Your task to perform on an android device: Open Reddit.com Image 0: 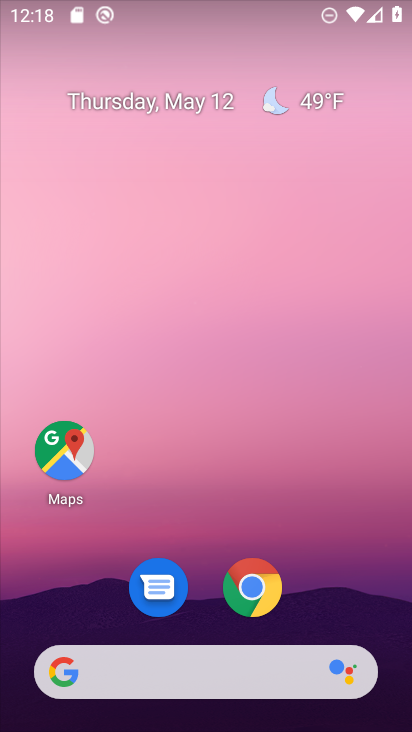
Step 0: drag from (317, 623) to (365, 190)
Your task to perform on an android device: Open Reddit.com Image 1: 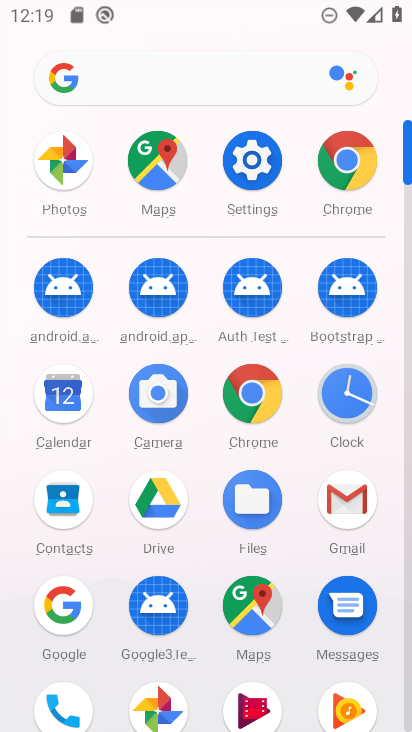
Step 1: click (343, 164)
Your task to perform on an android device: Open Reddit.com Image 2: 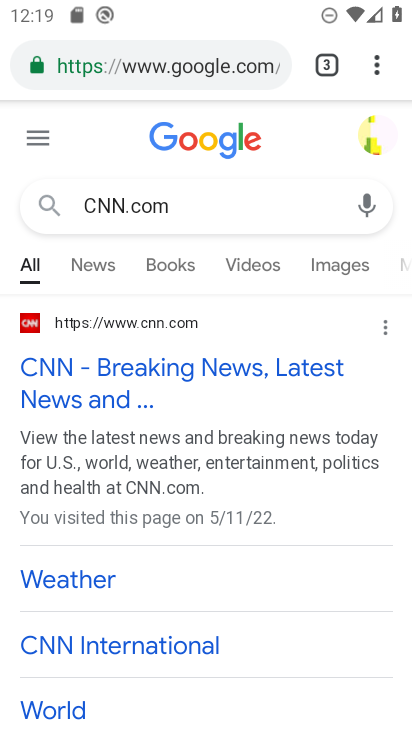
Step 2: click (359, 63)
Your task to perform on an android device: Open Reddit.com Image 3: 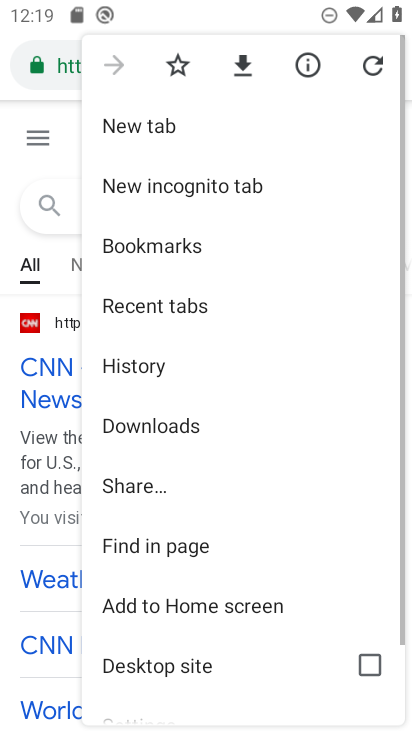
Step 3: click (164, 135)
Your task to perform on an android device: Open Reddit.com Image 4: 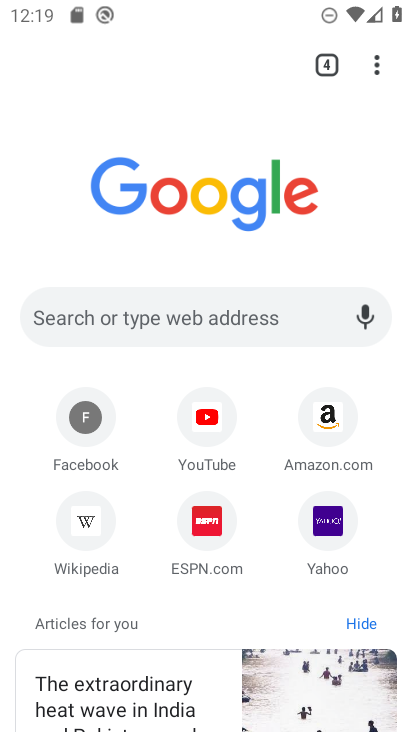
Step 4: click (173, 326)
Your task to perform on an android device: Open Reddit.com Image 5: 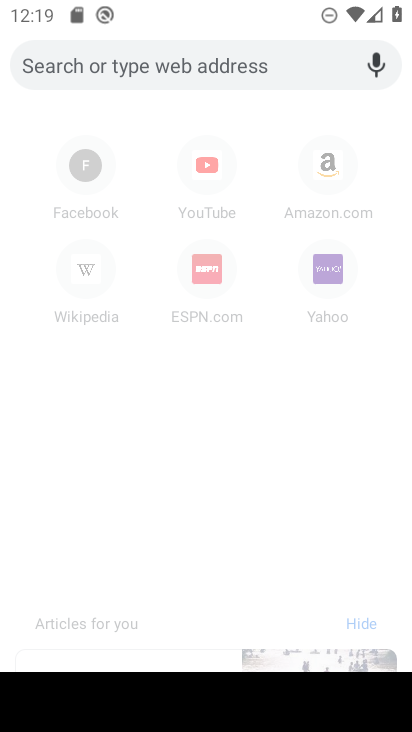
Step 5: type "Reddit.com"
Your task to perform on an android device: Open Reddit.com Image 6: 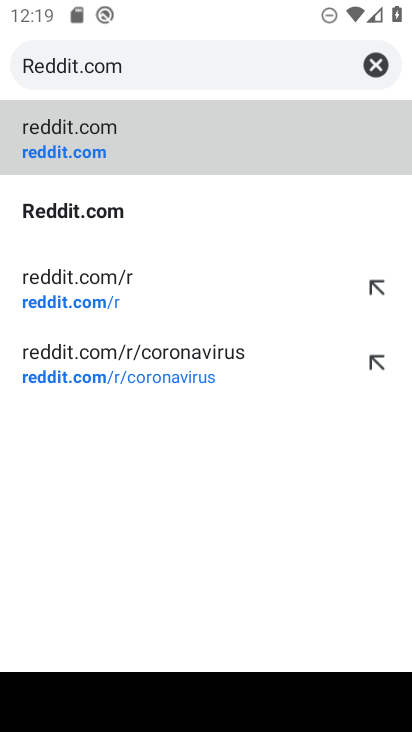
Step 6: click (107, 149)
Your task to perform on an android device: Open Reddit.com Image 7: 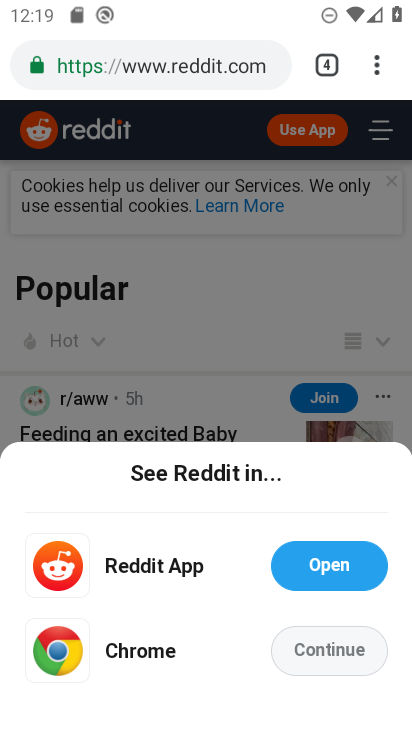
Step 7: click (319, 563)
Your task to perform on an android device: Open Reddit.com Image 8: 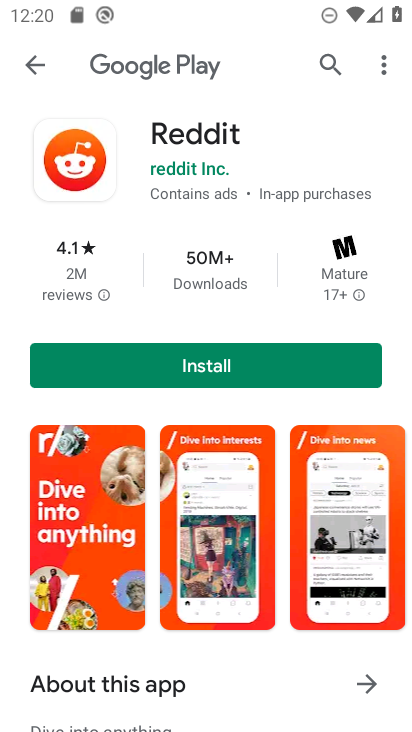
Step 8: task complete